Your task to perform on an android device: check battery use Image 0: 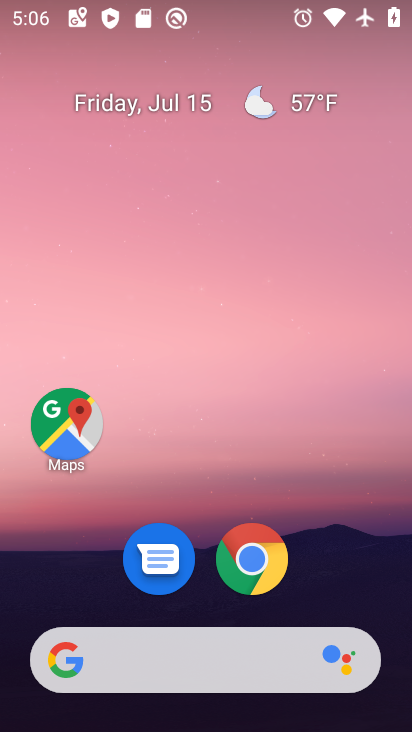
Step 0: drag from (98, 586) to (256, 0)
Your task to perform on an android device: check battery use Image 1: 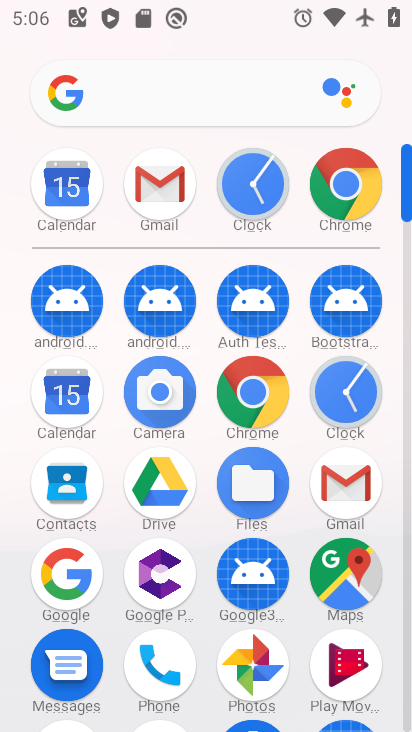
Step 1: drag from (191, 647) to (284, 46)
Your task to perform on an android device: check battery use Image 2: 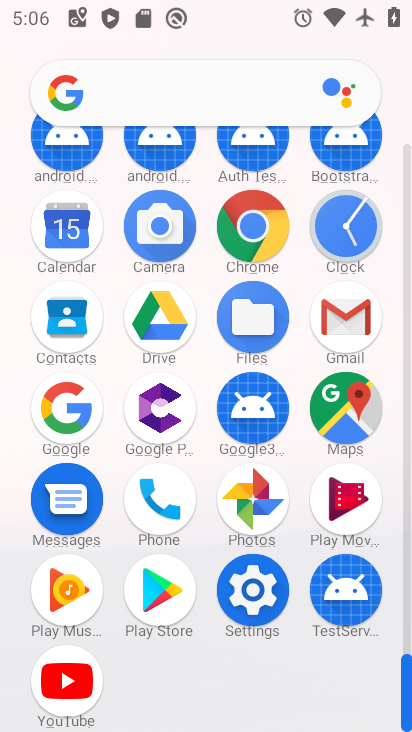
Step 2: click (241, 603)
Your task to perform on an android device: check battery use Image 3: 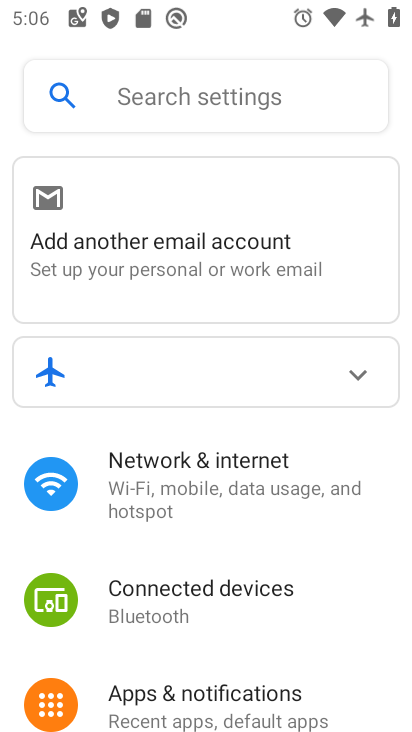
Step 3: drag from (172, 664) to (267, 243)
Your task to perform on an android device: check battery use Image 4: 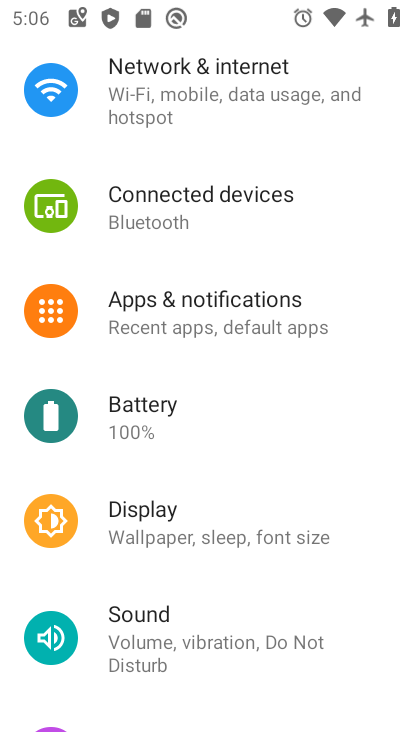
Step 4: click (171, 420)
Your task to perform on an android device: check battery use Image 5: 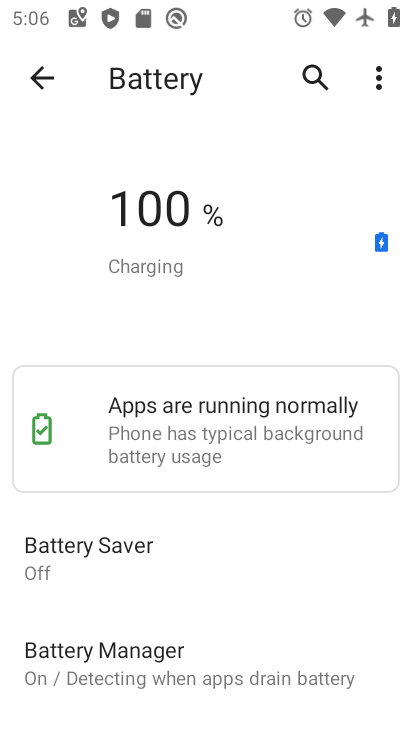
Step 5: task complete